Your task to perform on an android device: create a new album in the google photos Image 0: 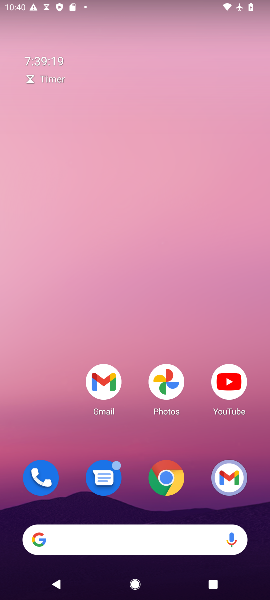
Step 0: click (172, 387)
Your task to perform on an android device: create a new album in the google photos Image 1: 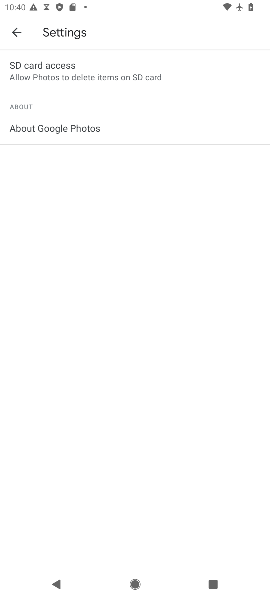
Step 1: click (10, 31)
Your task to perform on an android device: create a new album in the google photos Image 2: 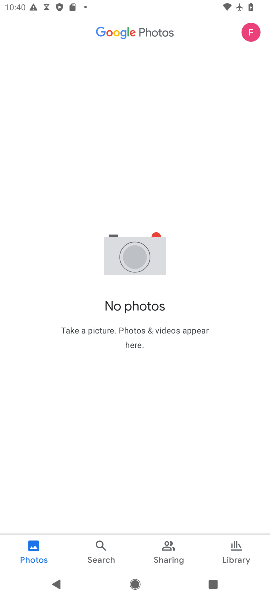
Step 2: click (232, 552)
Your task to perform on an android device: create a new album in the google photos Image 3: 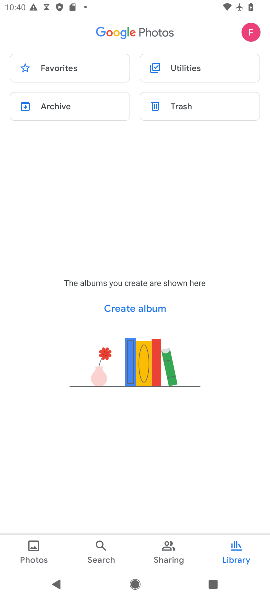
Step 3: click (129, 308)
Your task to perform on an android device: create a new album in the google photos Image 4: 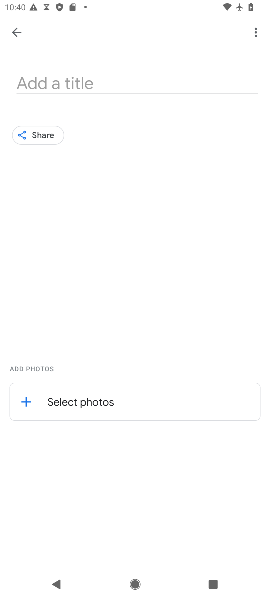
Step 4: click (125, 401)
Your task to perform on an android device: create a new album in the google photos Image 5: 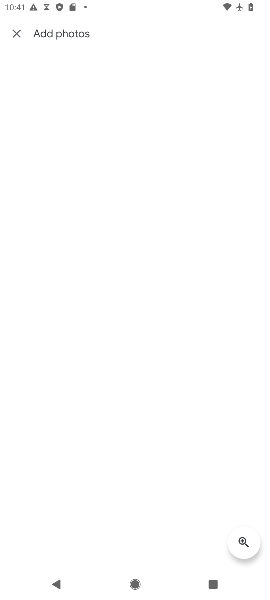
Step 5: task complete